Your task to perform on an android device: What's on my calendar today? Image 0: 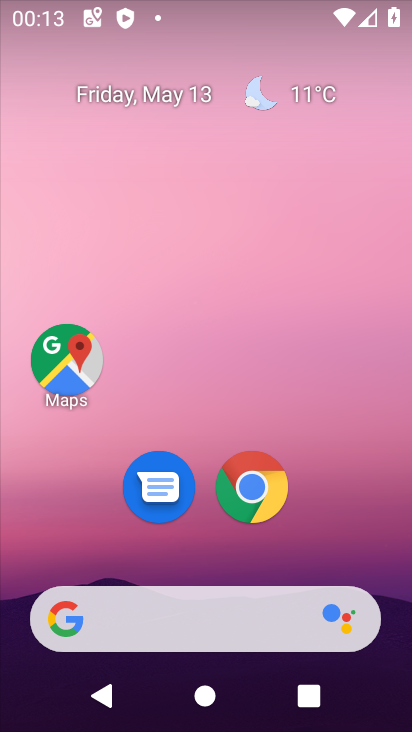
Step 0: click (127, 97)
Your task to perform on an android device: What's on my calendar today? Image 1: 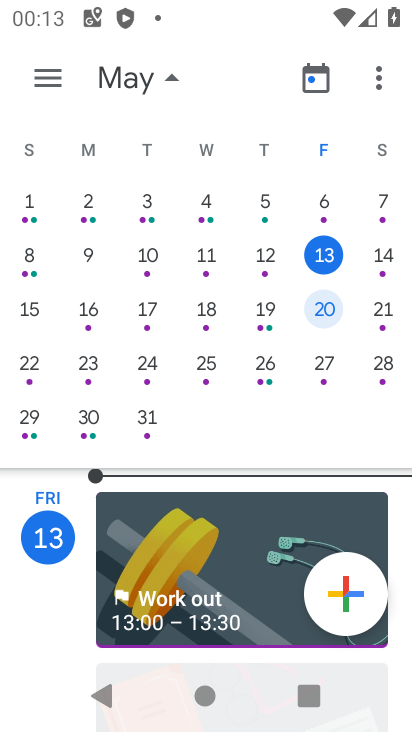
Step 1: task complete